Your task to perform on an android device: check google app version Image 0: 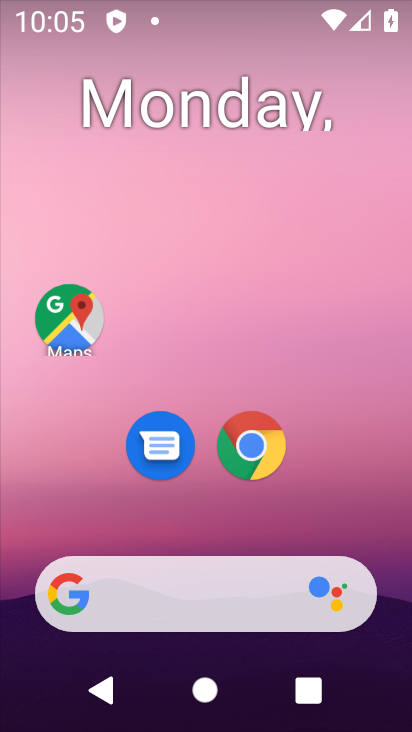
Step 0: click (256, 445)
Your task to perform on an android device: check google app version Image 1: 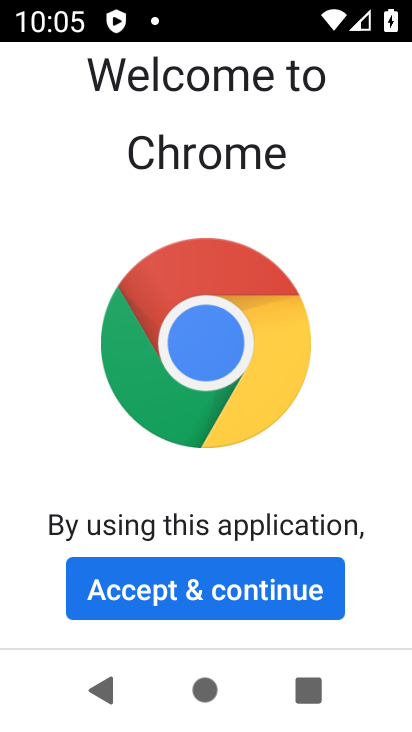
Step 1: click (295, 581)
Your task to perform on an android device: check google app version Image 2: 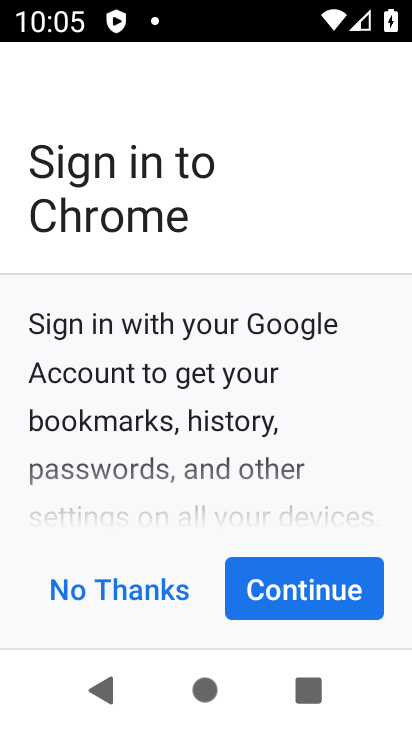
Step 2: click (295, 581)
Your task to perform on an android device: check google app version Image 3: 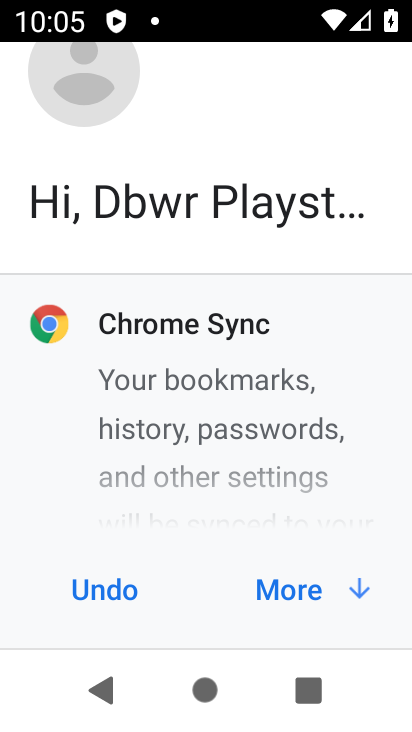
Step 3: click (295, 581)
Your task to perform on an android device: check google app version Image 4: 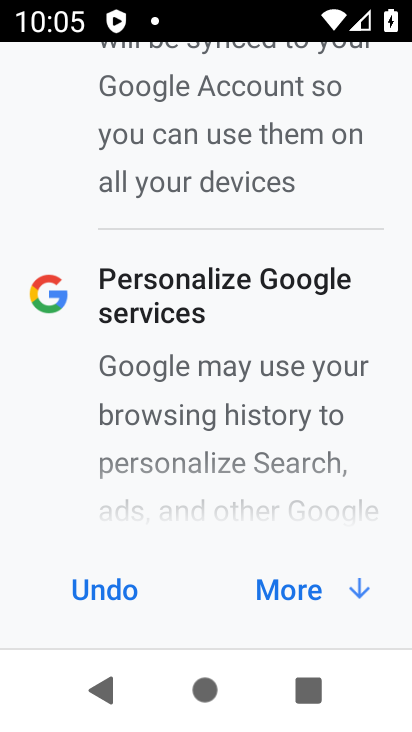
Step 4: click (295, 581)
Your task to perform on an android device: check google app version Image 5: 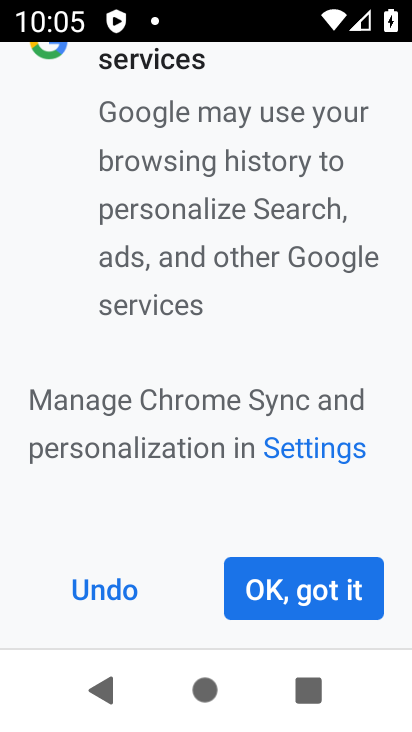
Step 5: click (295, 581)
Your task to perform on an android device: check google app version Image 6: 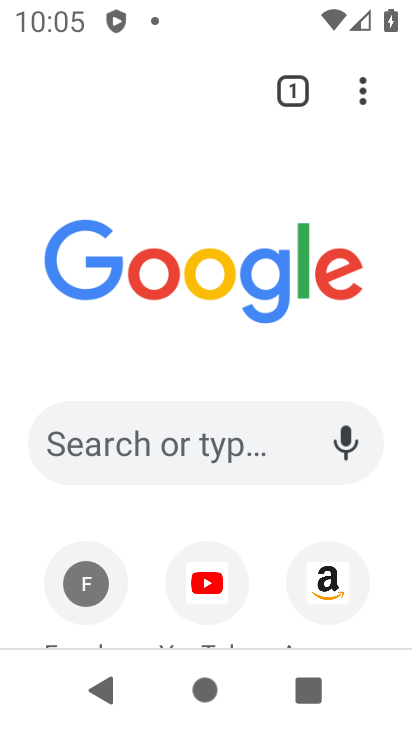
Step 6: click (363, 83)
Your task to perform on an android device: check google app version Image 7: 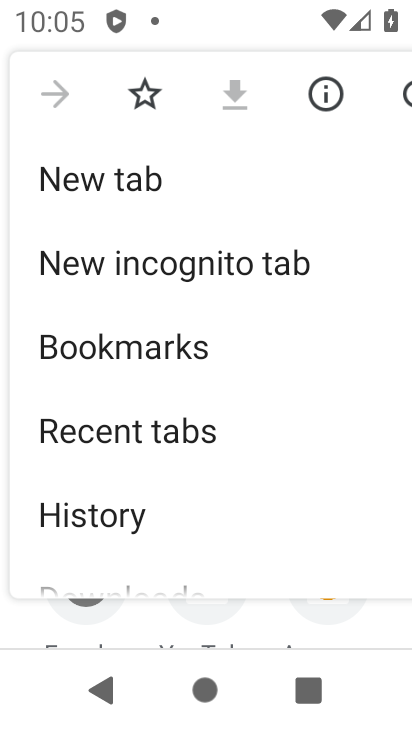
Step 7: drag from (170, 558) to (192, 201)
Your task to perform on an android device: check google app version Image 8: 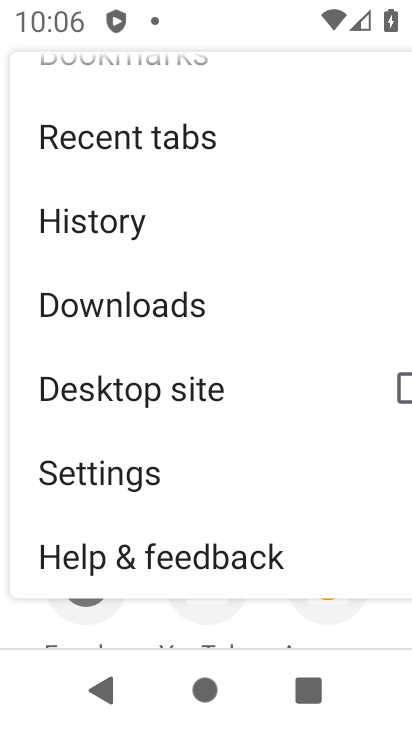
Step 8: click (146, 459)
Your task to perform on an android device: check google app version Image 9: 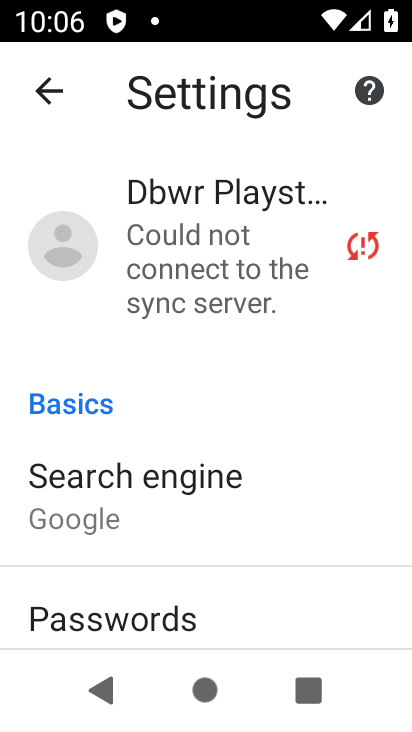
Step 9: drag from (227, 603) to (248, 545)
Your task to perform on an android device: check google app version Image 10: 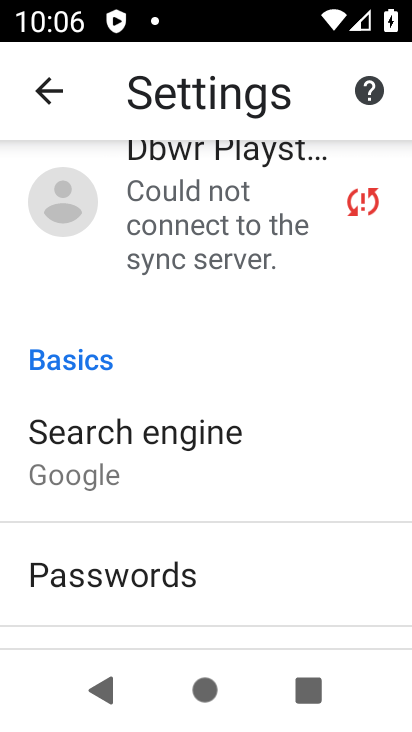
Step 10: click (60, 105)
Your task to perform on an android device: check google app version Image 11: 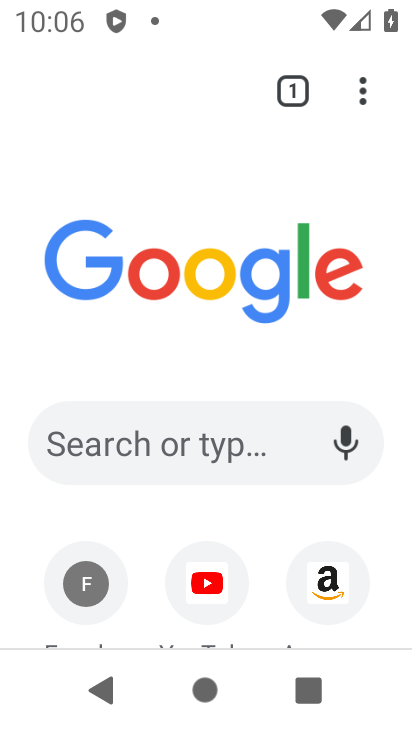
Step 11: click (367, 96)
Your task to perform on an android device: check google app version Image 12: 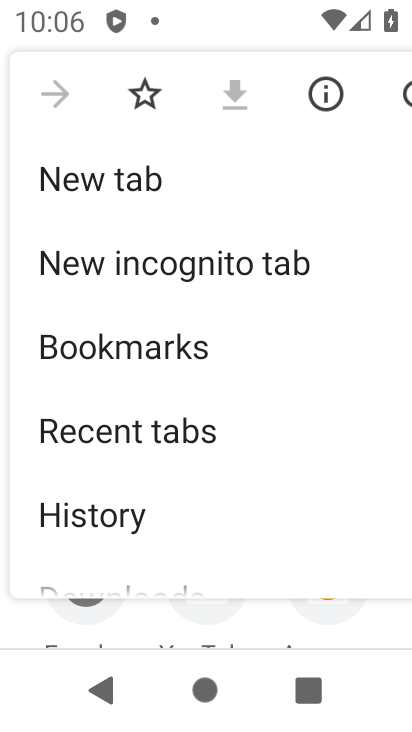
Step 12: drag from (281, 553) to (292, 199)
Your task to perform on an android device: check google app version Image 13: 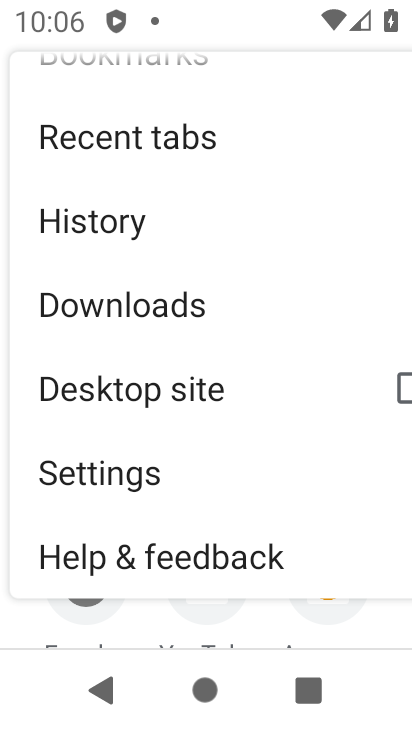
Step 13: click (278, 575)
Your task to perform on an android device: check google app version Image 14: 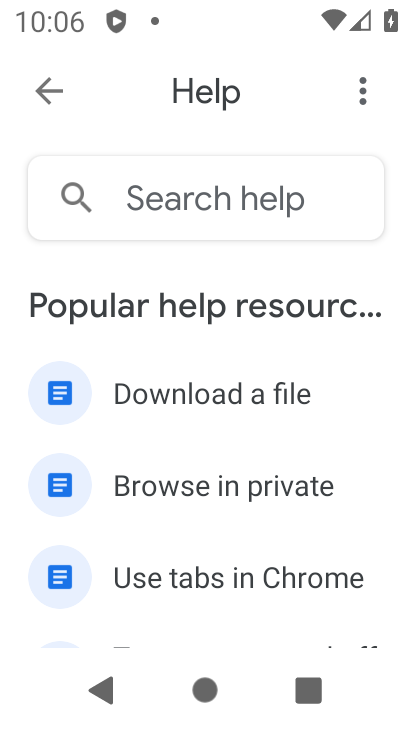
Step 14: click (370, 94)
Your task to perform on an android device: check google app version Image 15: 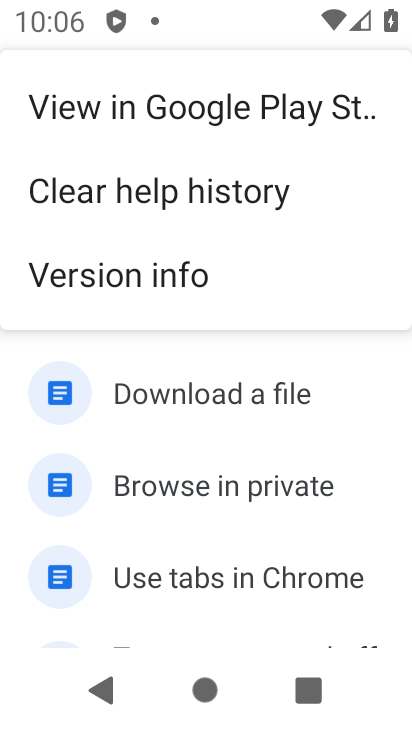
Step 15: click (227, 267)
Your task to perform on an android device: check google app version Image 16: 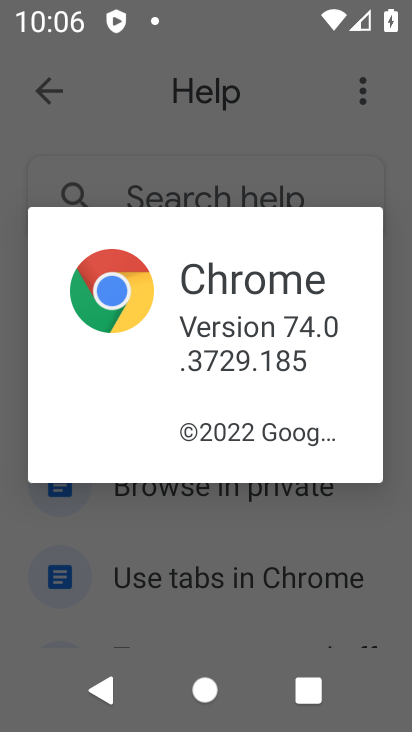
Step 16: task complete